Your task to perform on an android device: Open settings on Google Maps Image 0: 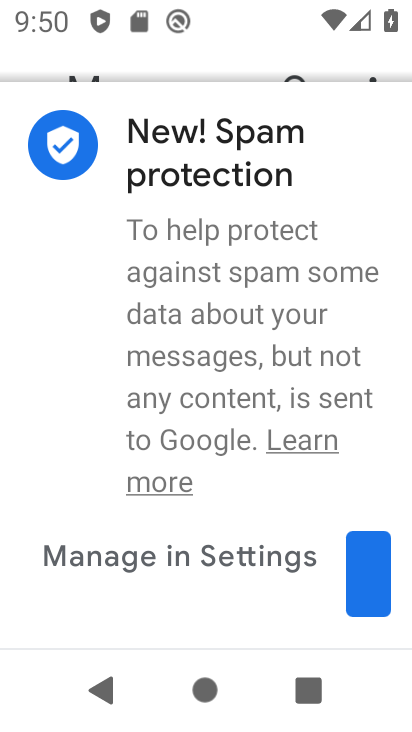
Step 0: press home button
Your task to perform on an android device: Open settings on Google Maps Image 1: 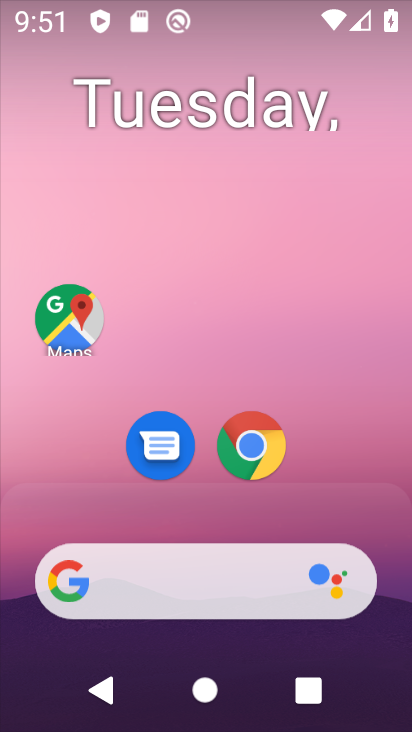
Step 1: click (69, 313)
Your task to perform on an android device: Open settings on Google Maps Image 2: 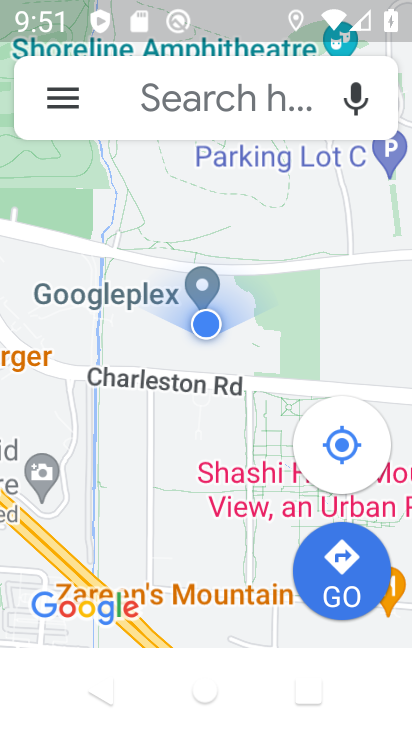
Step 2: click (54, 90)
Your task to perform on an android device: Open settings on Google Maps Image 3: 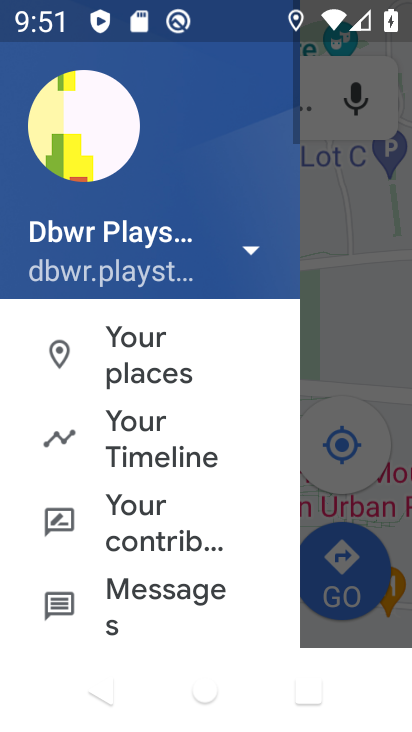
Step 3: drag from (80, 548) to (205, 273)
Your task to perform on an android device: Open settings on Google Maps Image 4: 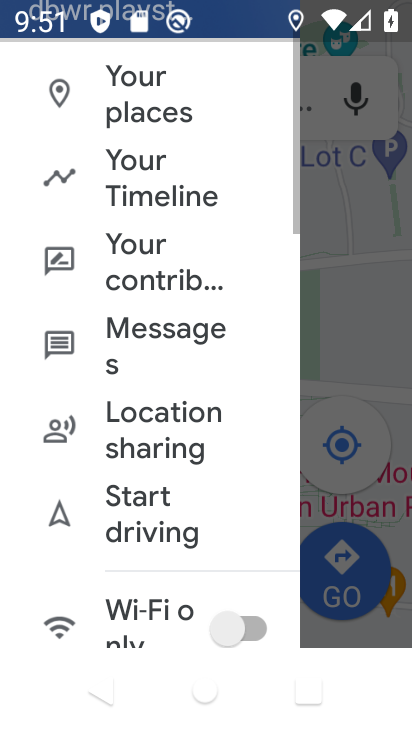
Step 4: drag from (157, 566) to (244, 110)
Your task to perform on an android device: Open settings on Google Maps Image 5: 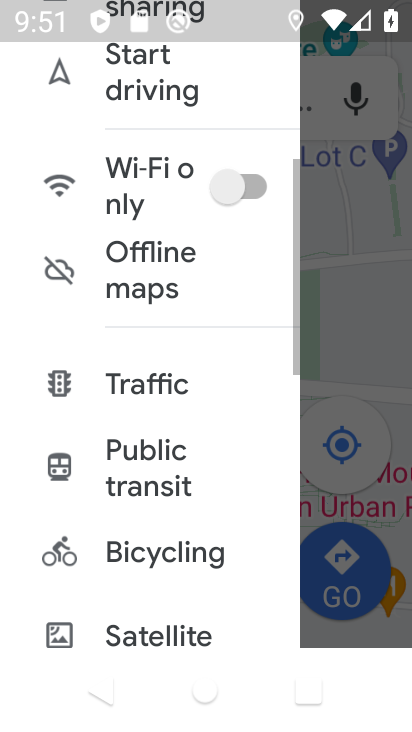
Step 5: drag from (164, 583) to (272, 181)
Your task to perform on an android device: Open settings on Google Maps Image 6: 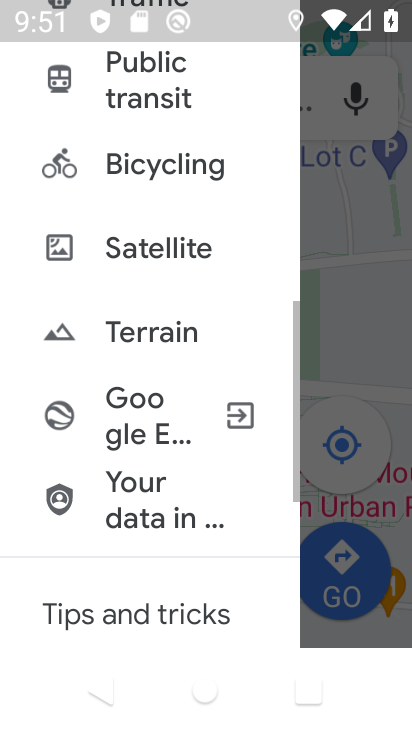
Step 6: drag from (126, 572) to (235, 167)
Your task to perform on an android device: Open settings on Google Maps Image 7: 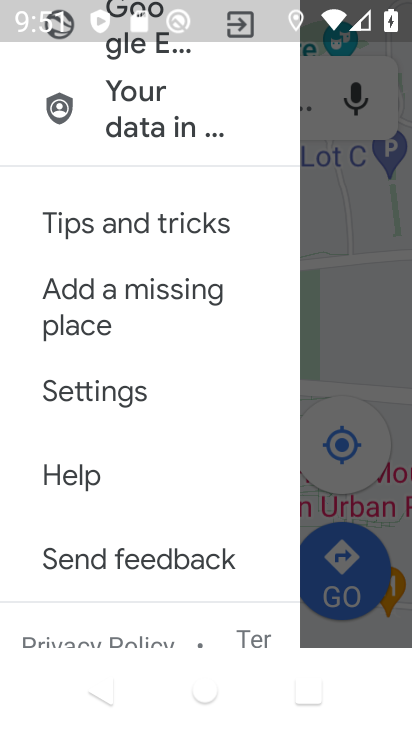
Step 7: click (155, 406)
Your task to perform on an android device: Open settings on Google Maps Image 8: 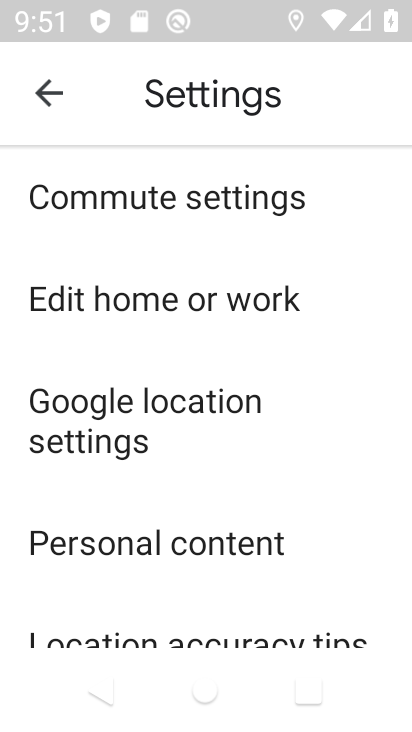
Step 8: task complete